Your task to perform on an android device: What's the weather today? Image 0: 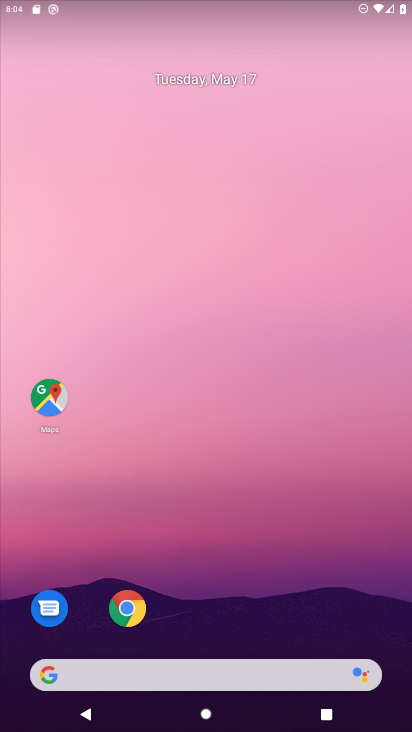
Step 0: click (182, 677)
Your task to perform on an android device: What's the weather today? Image 1: 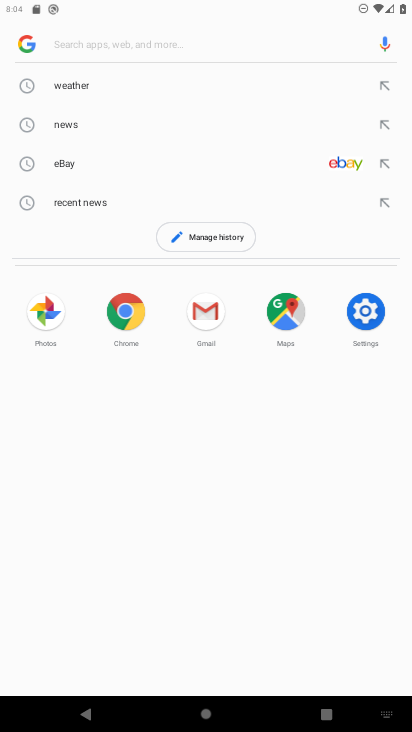
Step 1: click (81, 88)
Your task to perform on an android device: What's the weather today? Image 2: 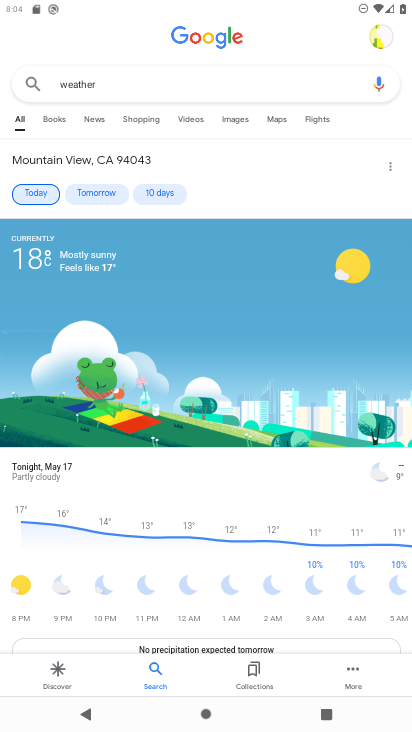
Step 2: task complete